Your task to perform on an android device: Open Chrome and go to the settings page Image 0: 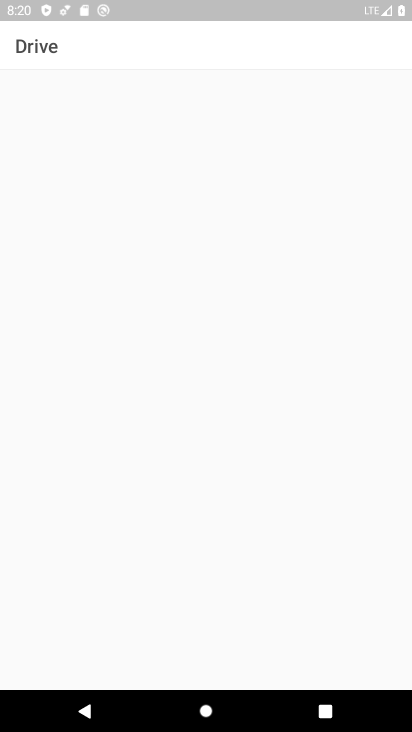
Step 0: press home button
Your task to perform on an android device: Open Chrome and go to the settings page Image 1: 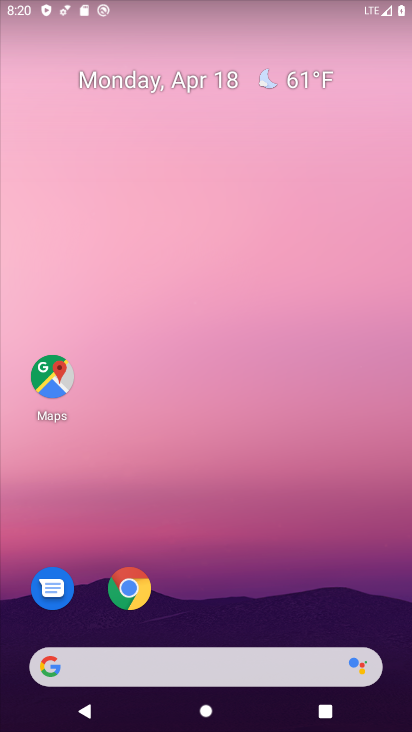
Step 1: click (123, 587)
Your task to perform on an android device: Open Chrome and go to the settings page Image 2: 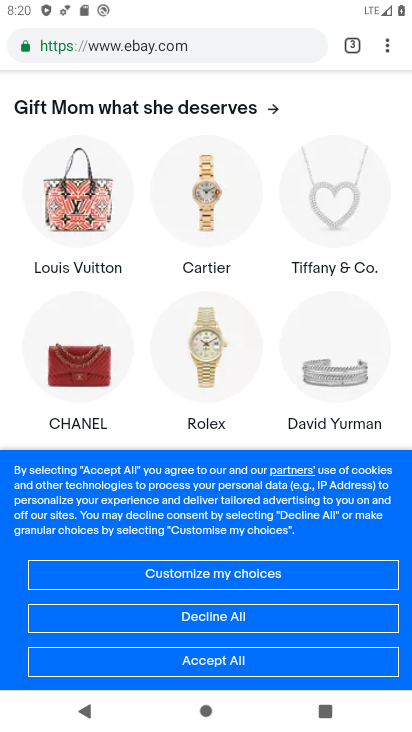
Step 2: click (386, 47)
Your task to perform on an android device: Open Chrome and go to the settings page Image 3: 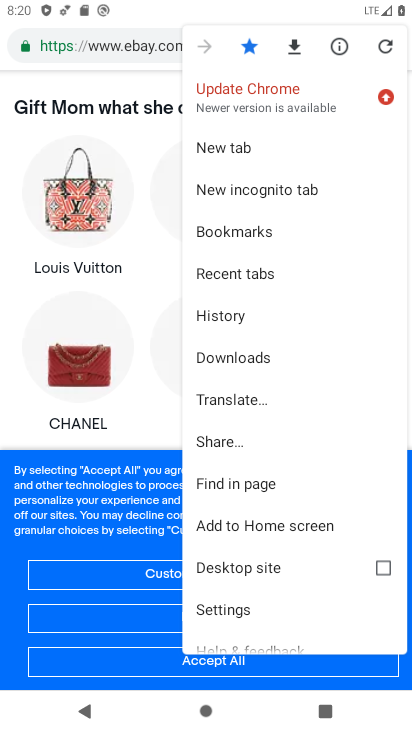
Step 3: click (226, 608)
Your task to perform on an android device: Open Chrome and go to the settings page Image 4: 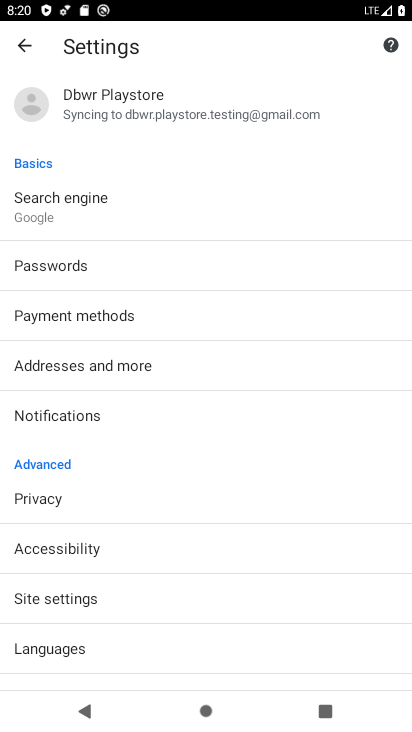
Step 4: task complete